Your task to perform on an android device: set an alarm Image 0: 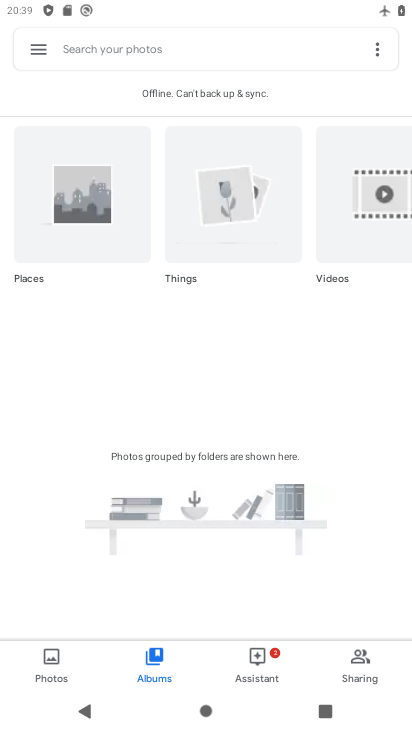
Step 0: press home button
Your task to perform on an android device: set an alarm Image 1: 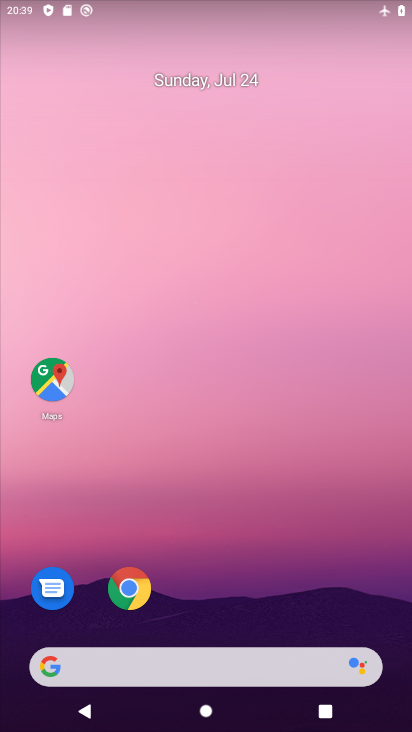
Step 1: drag from (263, 624) to (241, 197)
Your task to perform on an android device: set an alarm Image 2: 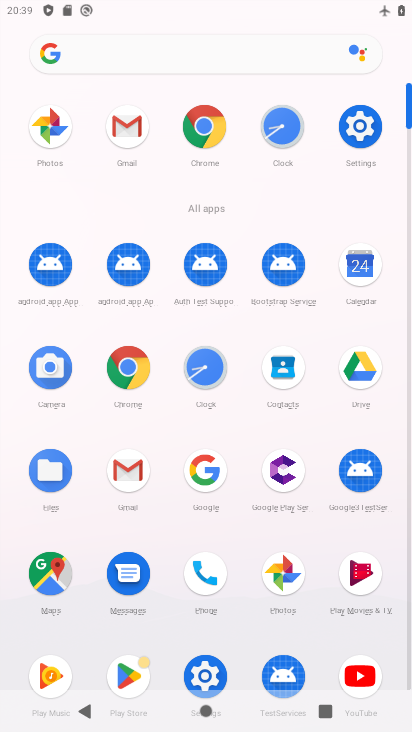
Step 2: click (204, 364)
Your task to perform on an android device: set an alarm Image 3: 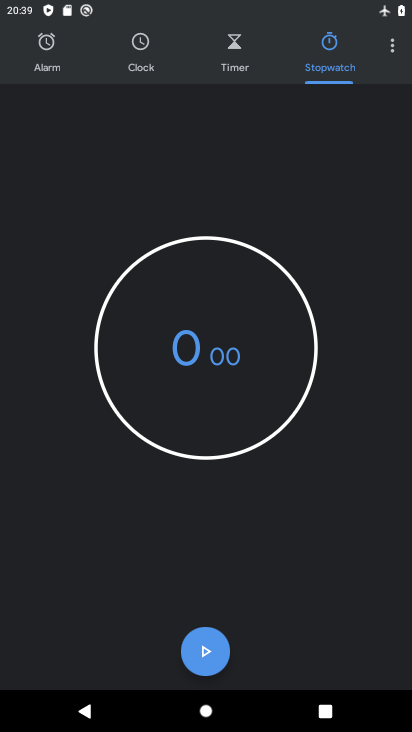
Step 3: click (59, 45)
Your task to perform on an android device: set an alarm Image 4: 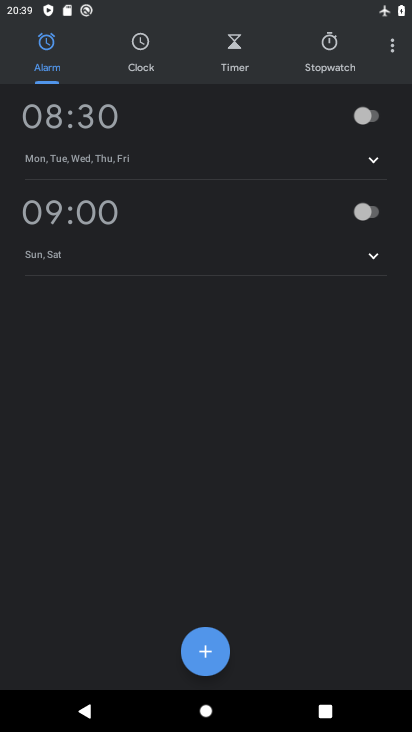
Step 4: click (377, 119)
Your task to perform on an android device: set an alarm Image 5: 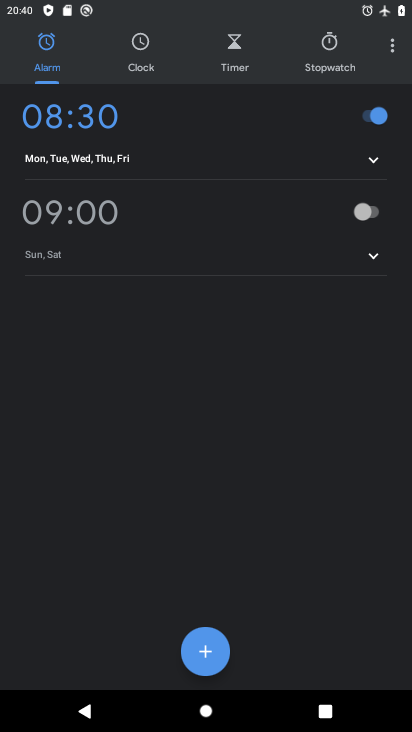
Step 5: task complete